Your task to perform on an android device: toggle wifi Image 0: 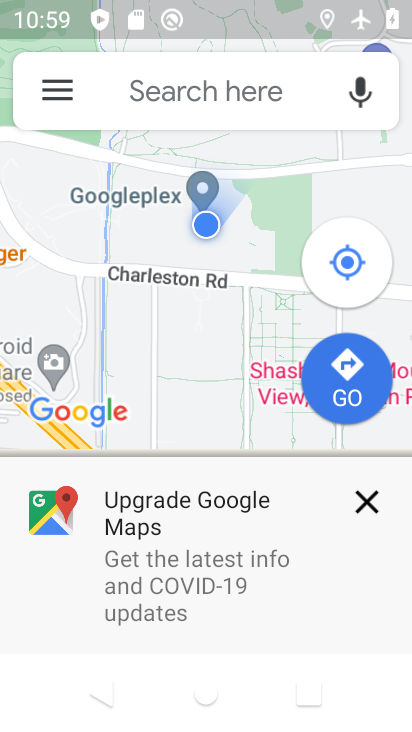
Step 0: press home button
Your task to perform on an android device: toggle wifi Image 1: 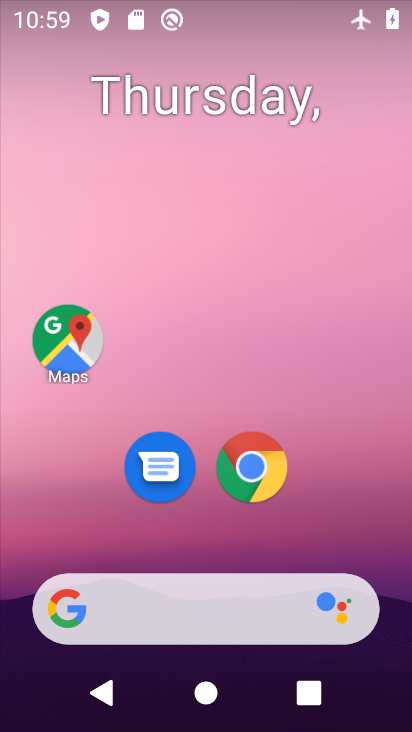
Step 1: drag from (361, 514) to (340, 3)
Your task to perform on an android device: toggle wifi Image 2: 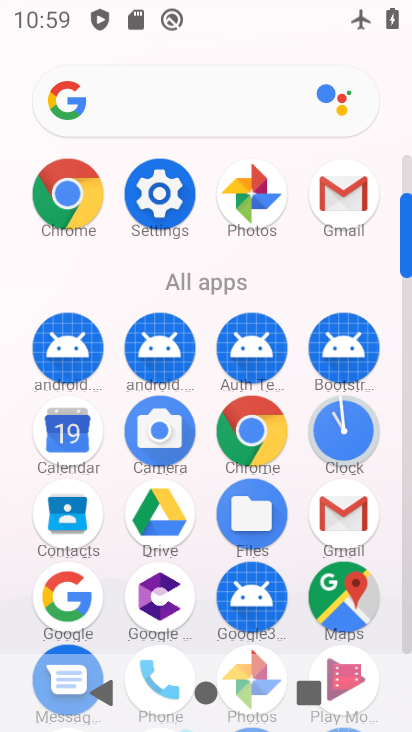
Step 2: click (163, 201)
Your task to perform on an android device: toggle wifi Image 3: 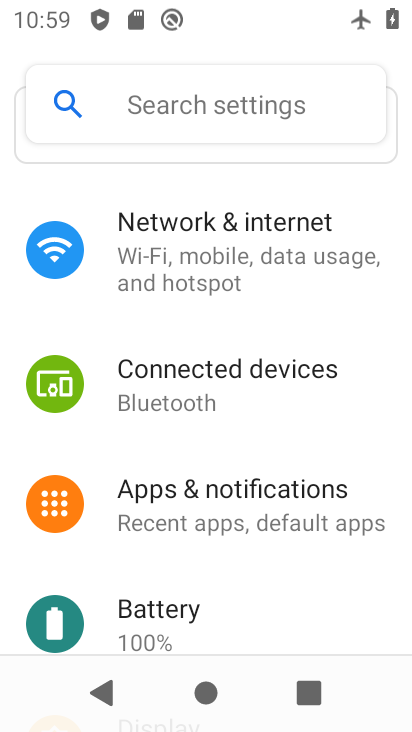
Step 3: click (189, 255)
Your task to perform on an android device: toggle wifi Image 4: 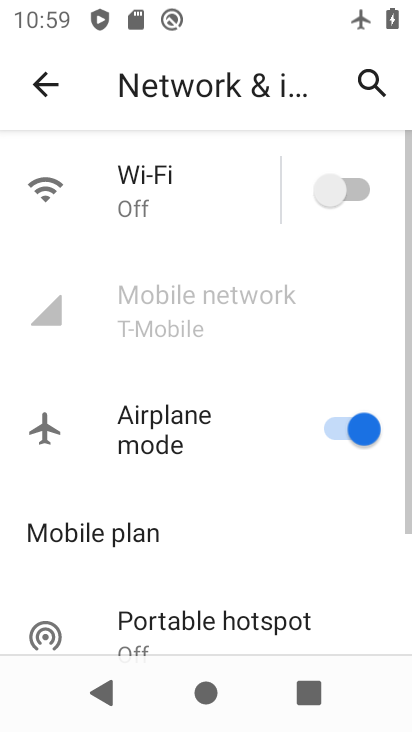
Step 4: click (315, 183)
Your task to perform on an android device: toggle wifi Image 5: 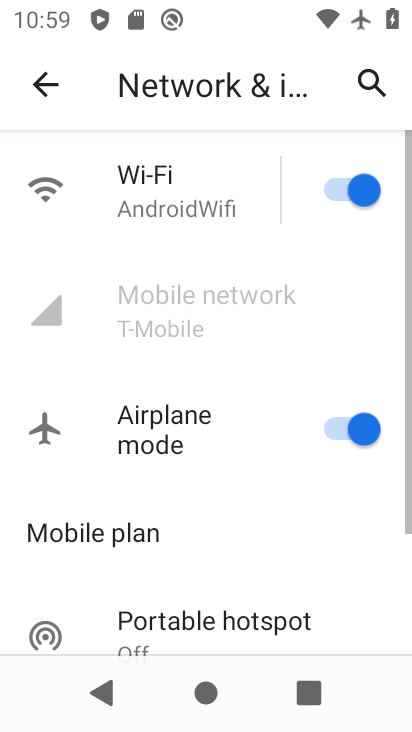
Step 5: task complete